Your task to perform on an android device: Open my contact list Image 0: 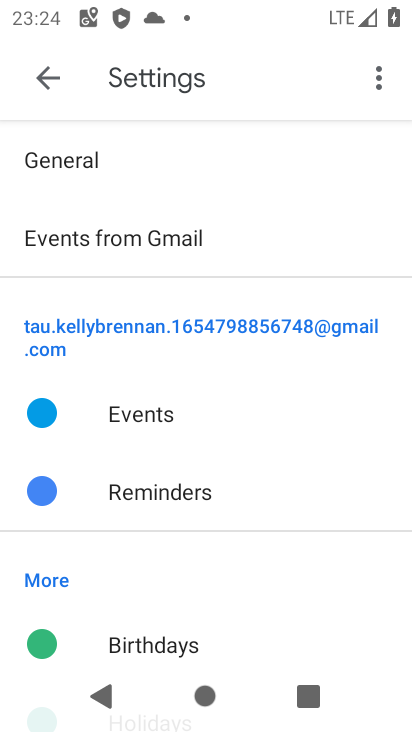
Step 0: press back button
Your task to perform on an android device: Open my contact list Image 1: 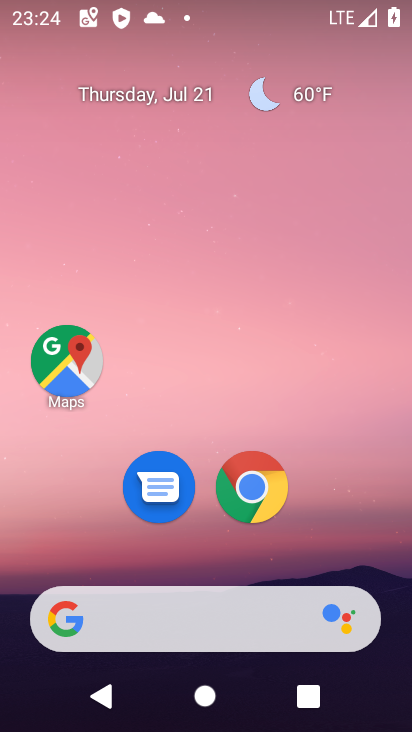
Step 1: drag from (174, 588) to (202, 14)
Your task to perform on an android device: Open my contact list Image 2: 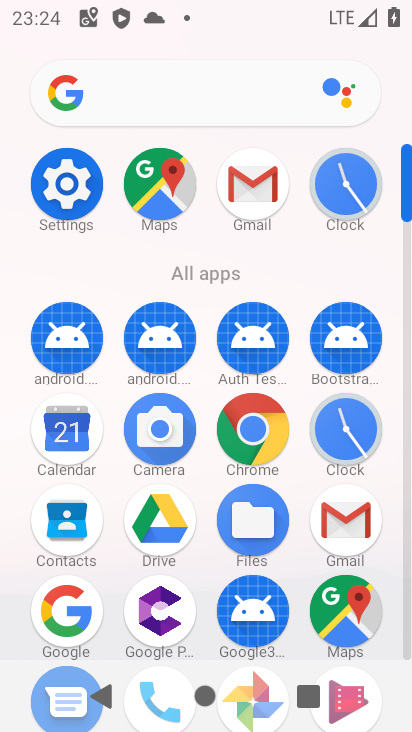
Step 2: click (60, 519)
Your task to perform on an android device: Open my contact list Image 3: 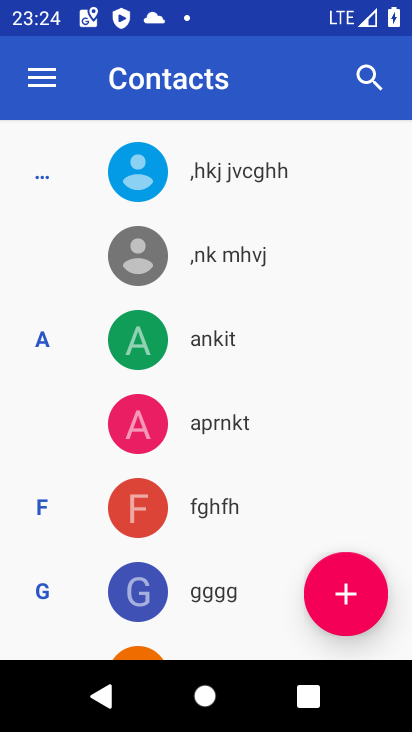
Step 3: task complete